Your task to perform on an android device: When is my next appointment? Image 0: 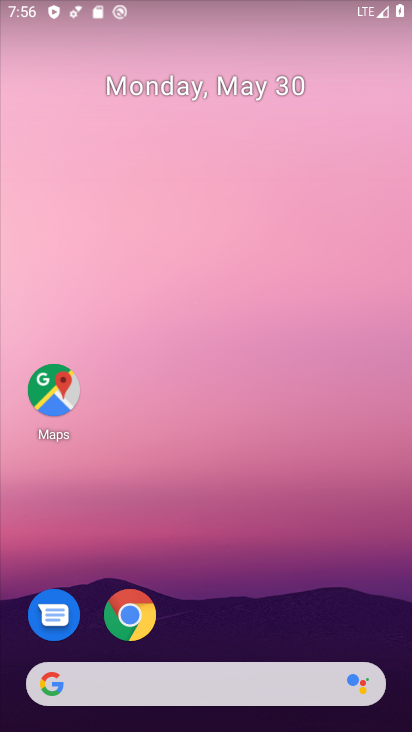
Step 0: drag from (222, 728) to (261, 140)
Your task to perform on an android device: When is my next appointment? Image 1: 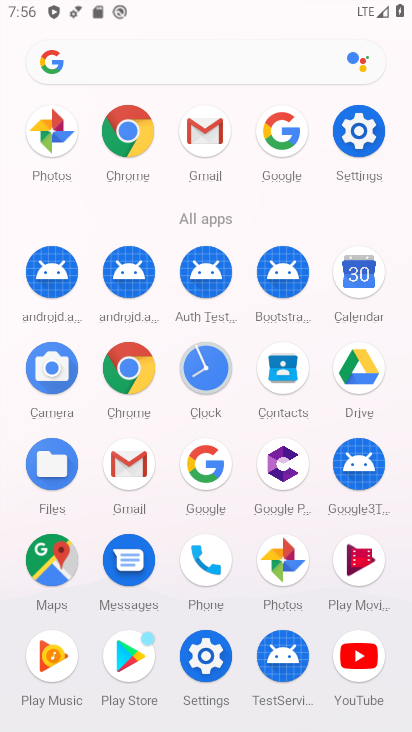
Step 1: click (374, 294)
Your task to perform on an android device: When is my next appointment? Image 2: 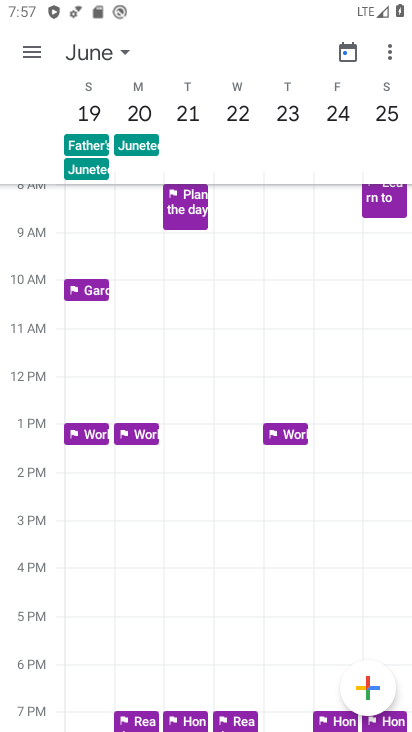
Step 2: drag from (63, 337) to (326, 307)
Your task to perform on an android device: When is my next appointment? Image 3: 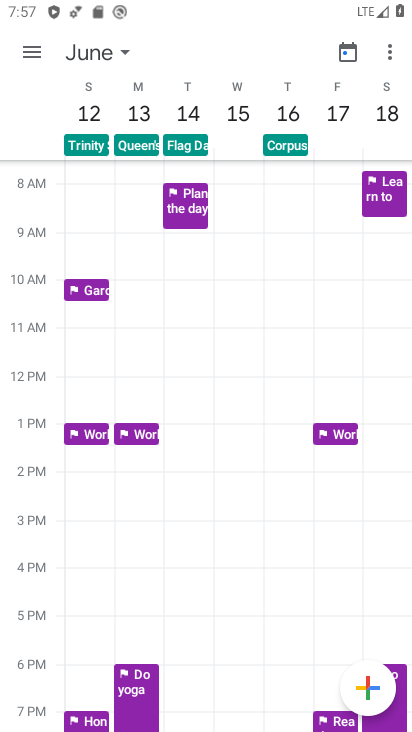
Step 3: drag from (85, 355) to (332, 314)
Your task to perform on an android device: When is my next appointment? Image 4: 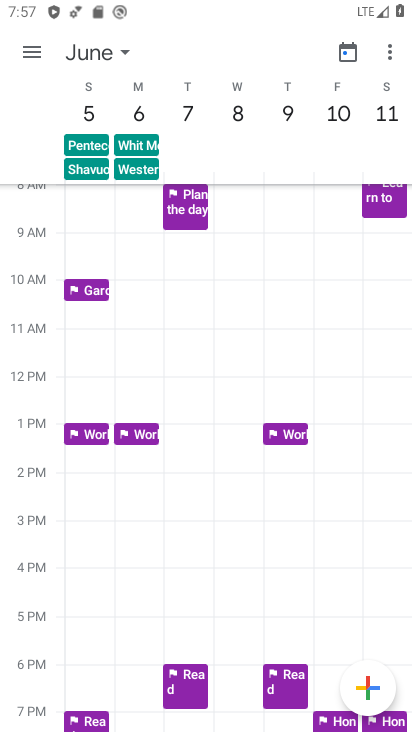
Step 4: drag from (82, 352) to (366, 302)
Your task to perform on an android device: When is my next appointment? Image 5: 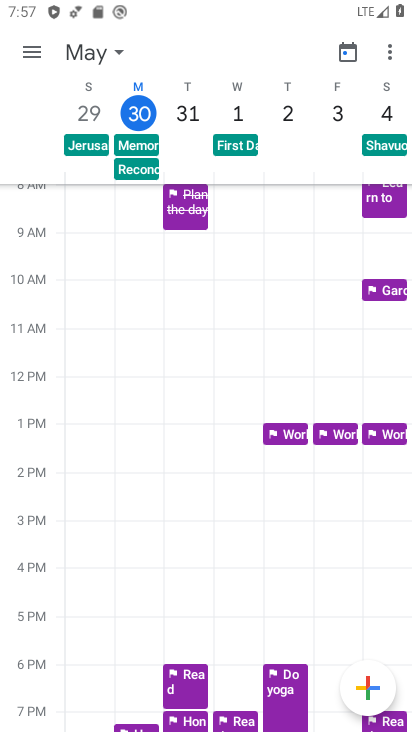
Step 5: click (35, 44)
Your task to perform on an android device: When is my next appointment? Image 6: 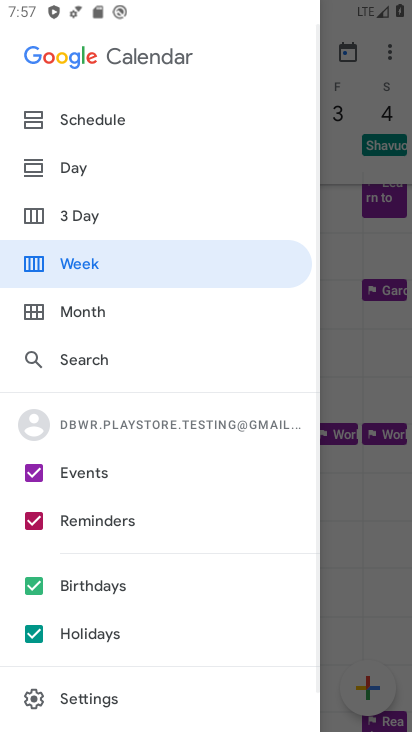
Step 6: click (67, 161)
Your task to perform on an android device: When is my next appointment? Image 7: 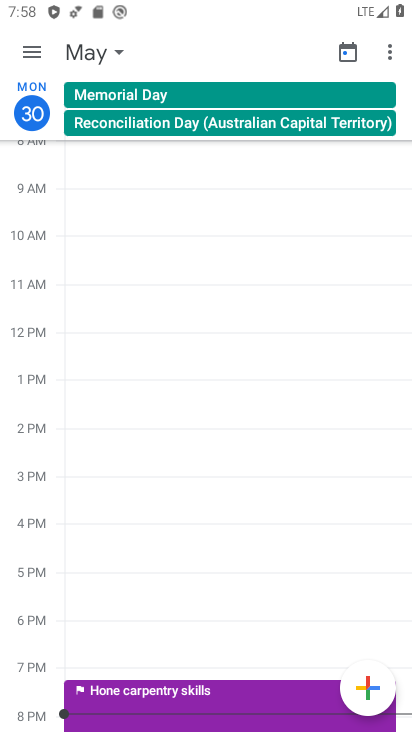
Step 7: task complete